Your task to perform on an android device: open a new tab in the chrome app Image 0: 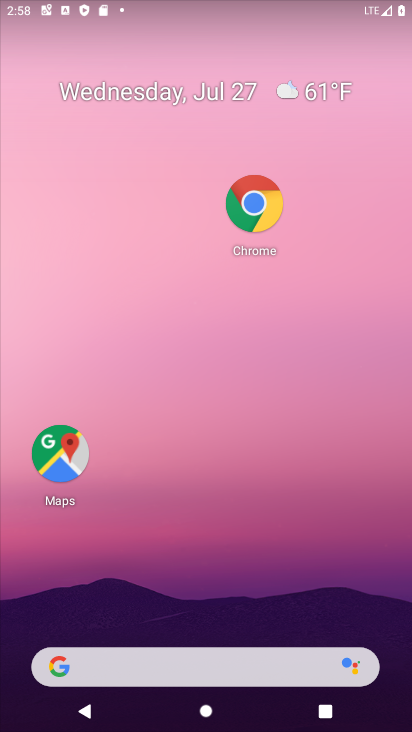
Step 0: click (257, 214)
Your task to perform on an android device: open a new tab in the chrome app Image 1: 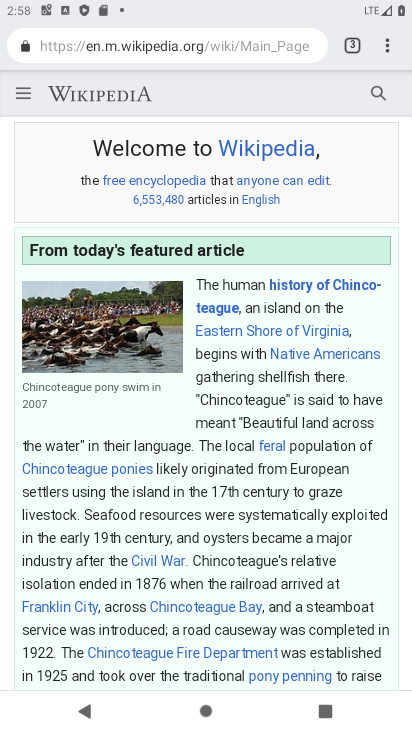
Step 1: click (354, 53)
Your task to perform on an android device: open a new tab in the chrome app Image 2: 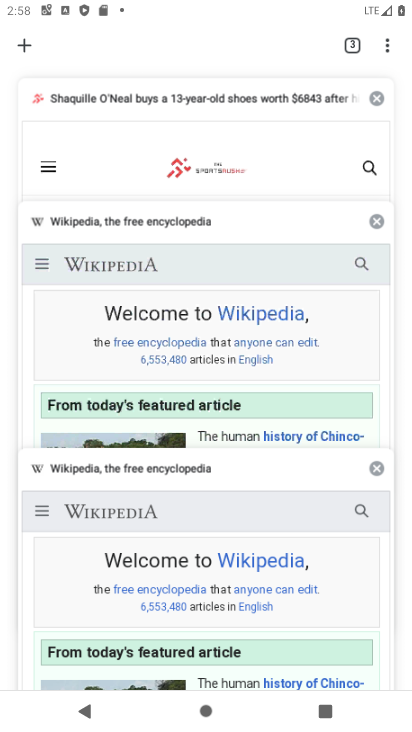
Step 2: click (31, 33)
Your task to perform on an android device: open a new tab in the chrome app Image 3: 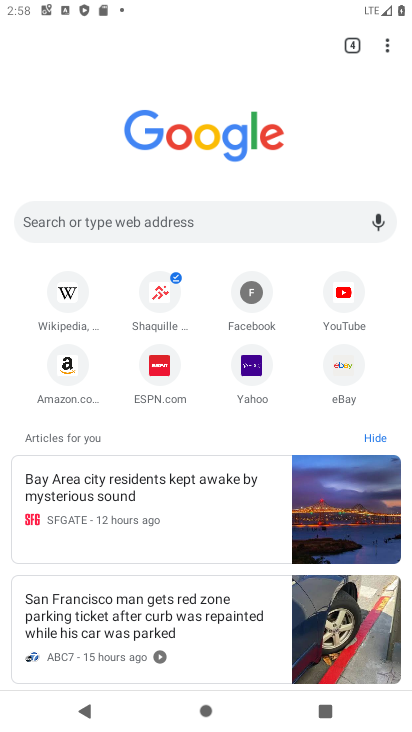
Step 3: task complete